Your task to perform on an android device: toggle wifi Image 0: 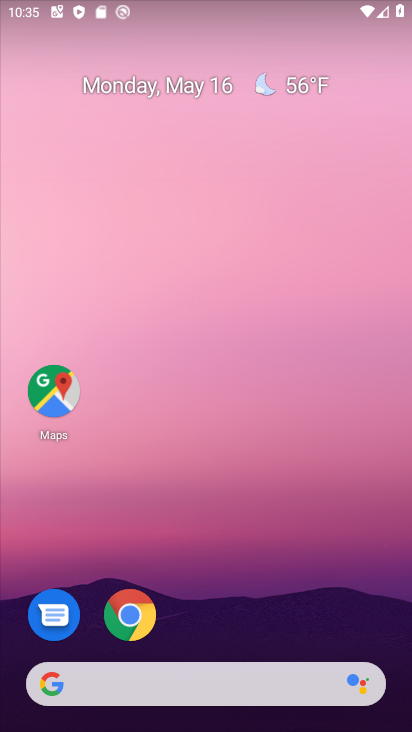
Step 0: drag from (315, 699) to (385, 125)
Your task to perform on an android device: toggle wifi Image 1: 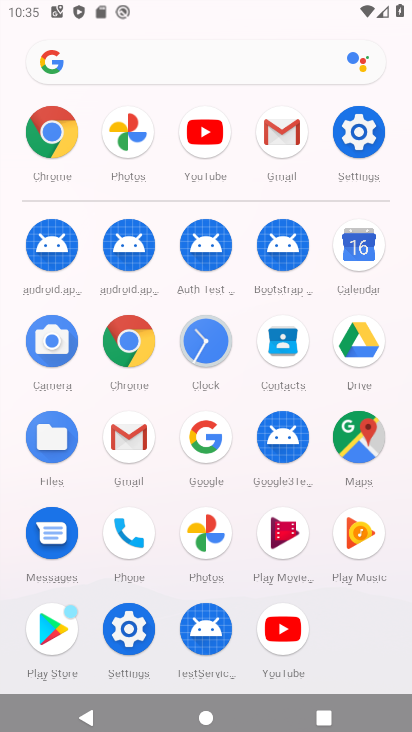
Step 1: click (355, 142)
Your task to perform on an android device: toggle wifi Image 2: 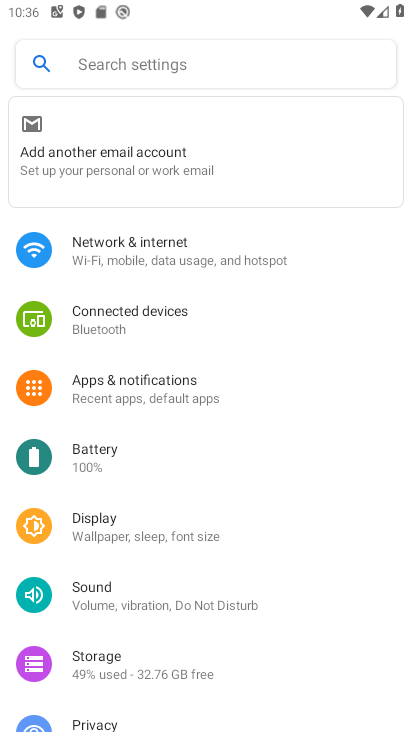
Step 2: click (218, 232)
Your task to perform on an android device: toggle wifi Image 3: 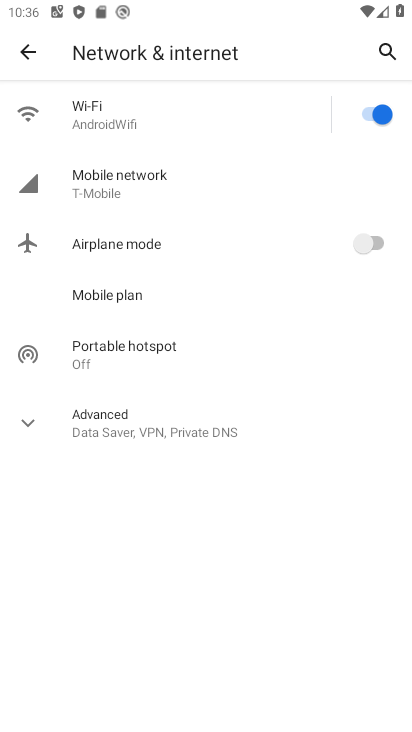
Step 3: click (159, 127)
Your task to perform on an android device: toggle wifi Image 4: 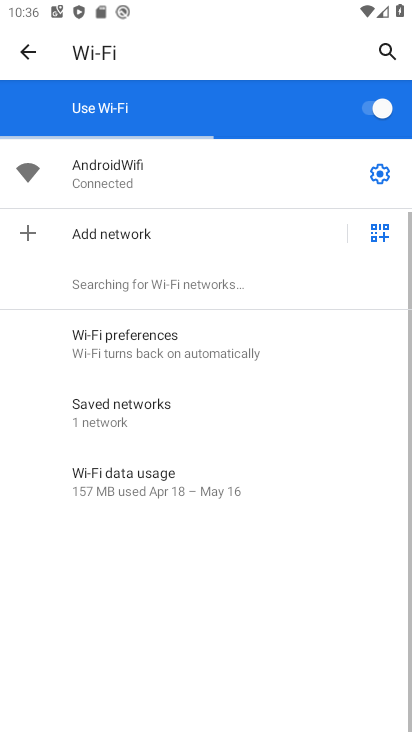
Step 4: task complete